Your task to perform on an android device: set default search engine in the chrome app Image 0: 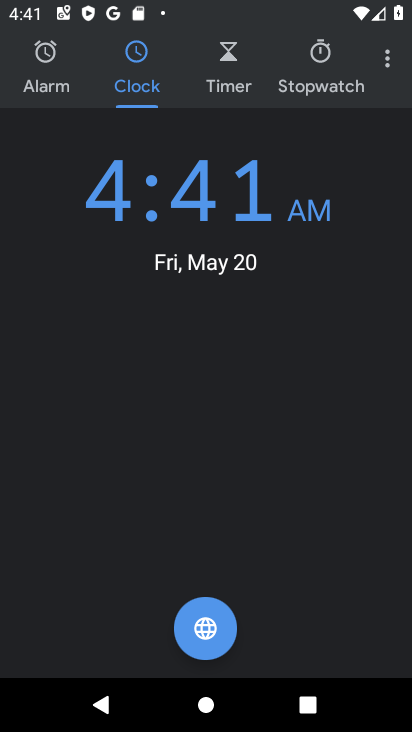
Step 0: press back button
Your task to perform on an android device: set default search engine in the chrome app Image 1: 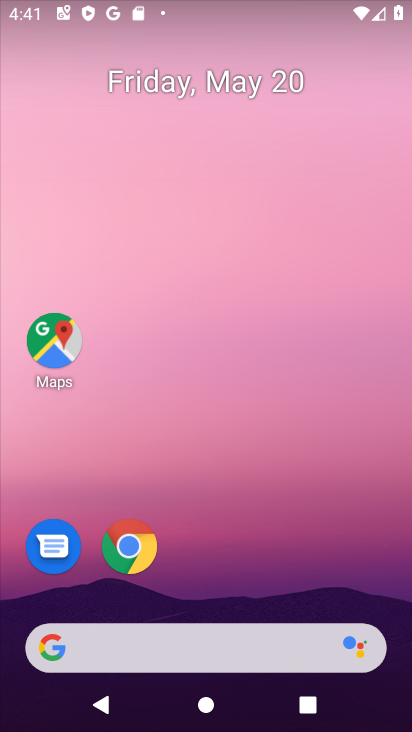
Step 1: click (128, 545)
Your task to perform on an android device: set default search engine in the chrome app Image 2: 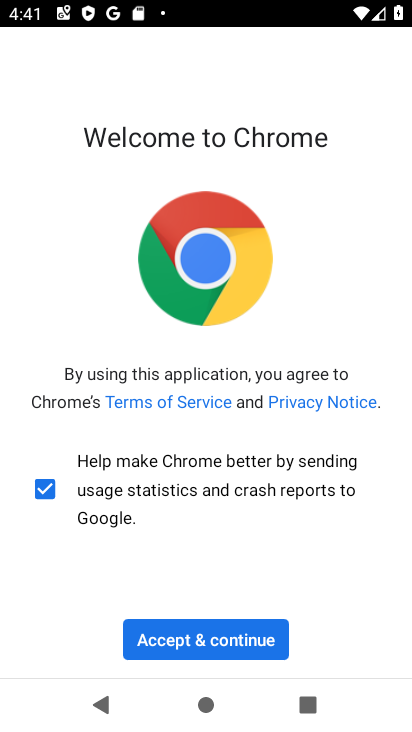
Step 2: click (187, 643)
Your task to perform on an android device: set default search engine in the chrome app Image 3: 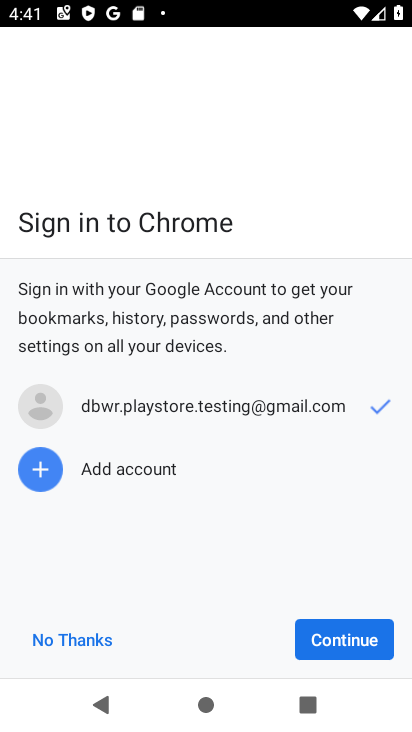
Step 3: click (352, 634)
Your task to perform on an android device: set default search engine in the chrome app Image 4: 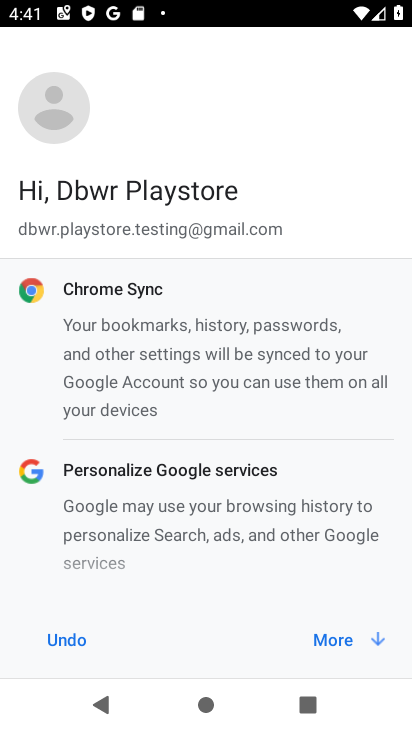
Step 4: click (343, 644)
Your task to perform on an android device: set default search engine in the chrome app Image 5: 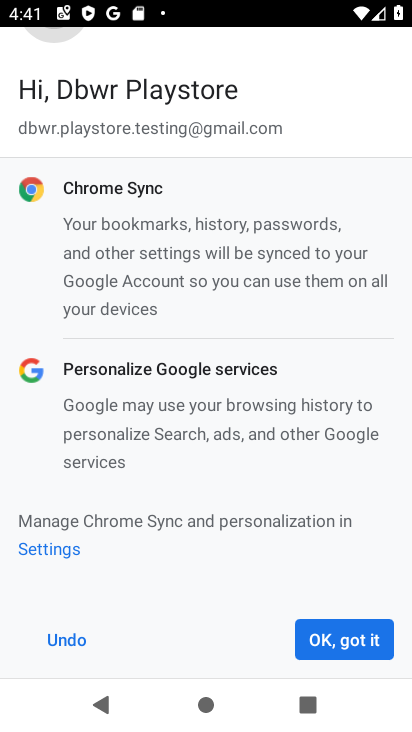
Step 5: click (343, 644)
Your task to perform on an android device: set default search engine in the chrome app Image 6: 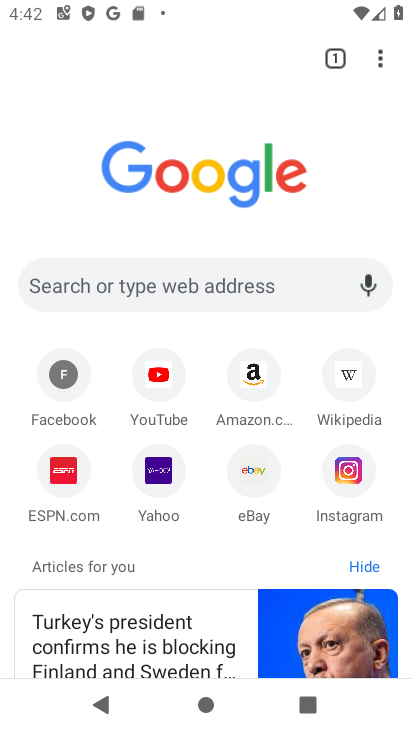
Step 6: click (380, 59)
Your task to perform on an android device: set default search engine in the chrome app Image 7: 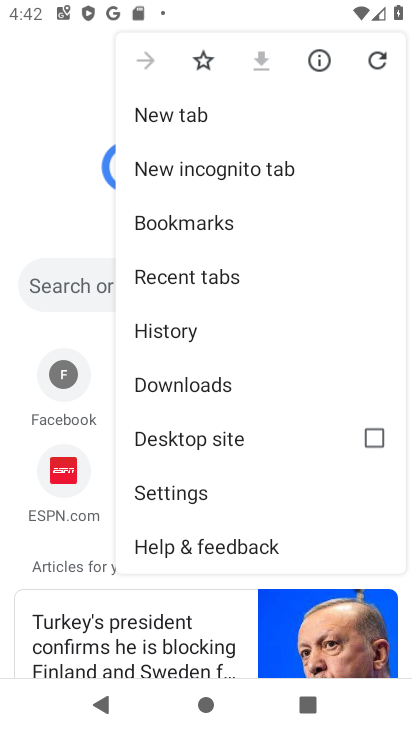
Step 7: click (186, 495)
Your task to perform on an android device: set default search engine in the chrome app Image 8: 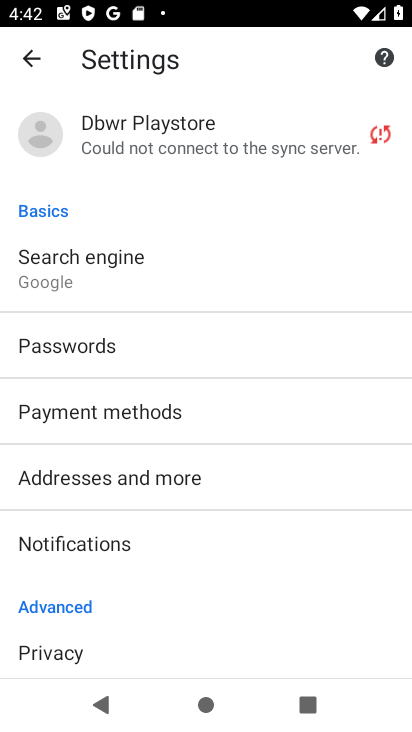
Step 8: drag from (131, 607) to (216, 375)
Your task to perform on an android device: set default search engine in the chrome app Image 9: 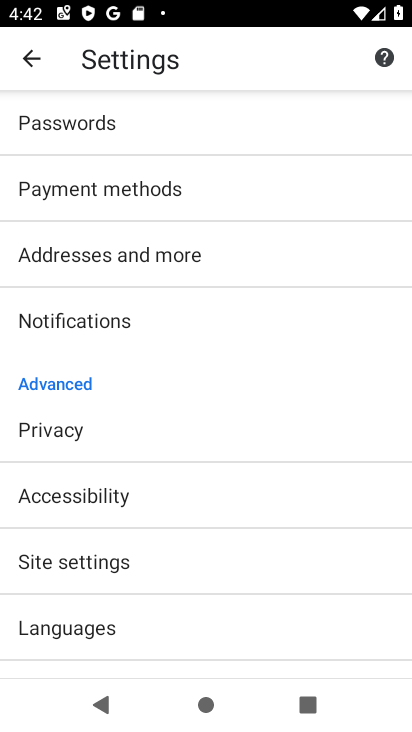
Step 9: drag from (231, 293) to (159, 537)
Your task to perform on an android device: set default search engine in the chrome app Image 10: 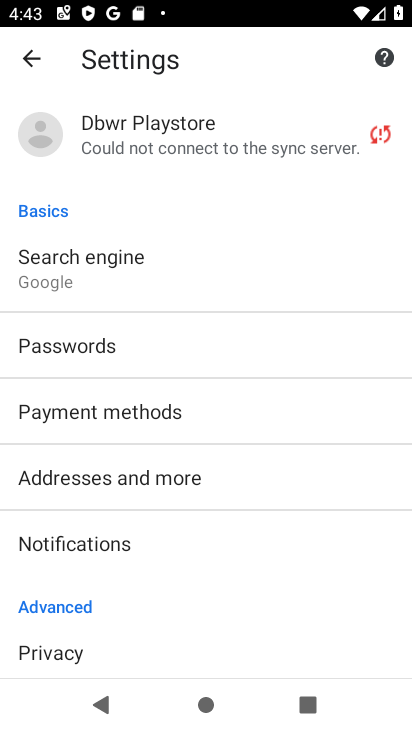
Step 10: click (104, 279)
Your task to perform on an android device: set default search engine in the chrome app Image 11: 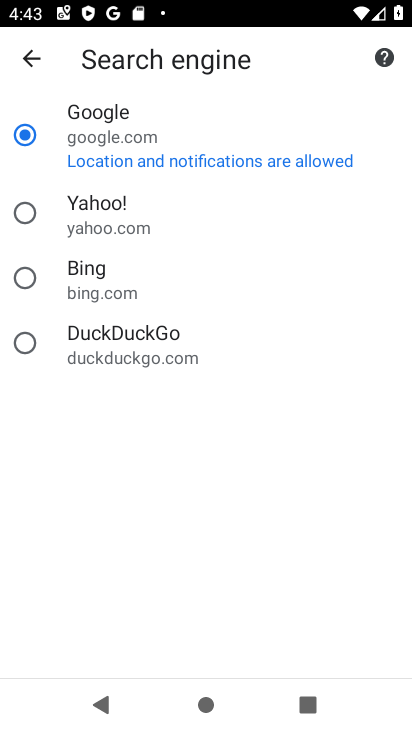
Step 11: click (104, 279)
Your task to perform on an android device: set default search engine in the chrome app Image 12: 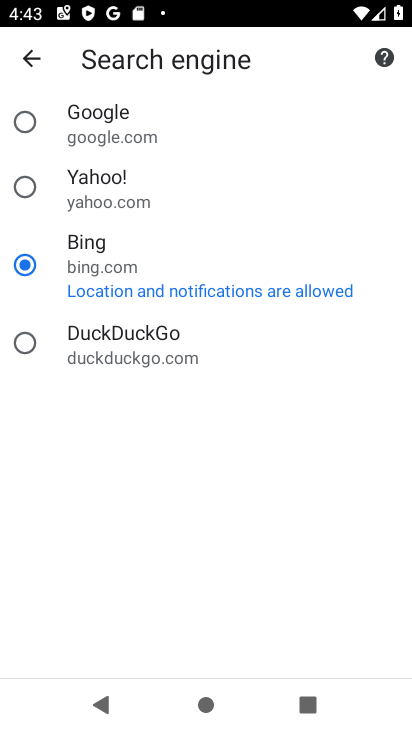
Step 12: task complete